Your task to perform on an android device: Go to location settings Image 0: 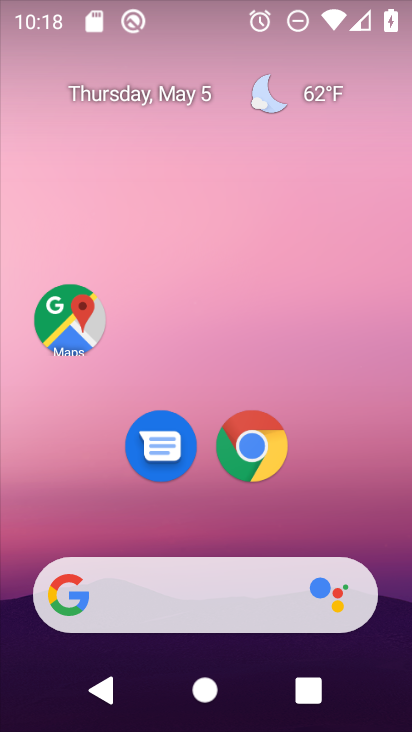
Step 0: drag from (284, 629) to (260, 203)
Your task to perform on an android device: Go to location settings Image 1: 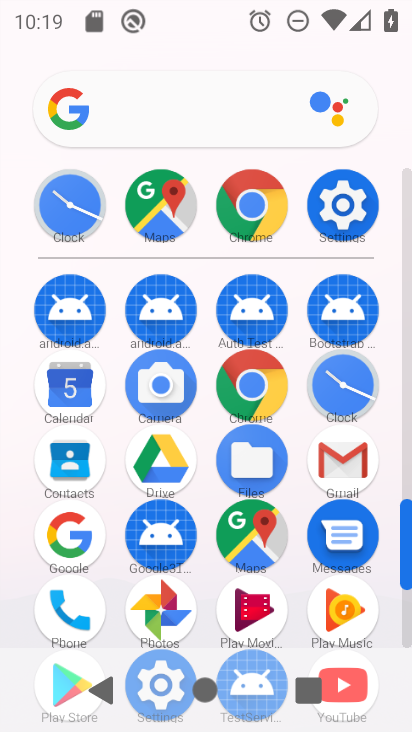
Step 1: click (328, 214)
Your task to perform on an android device: Go to location settings Image 2: 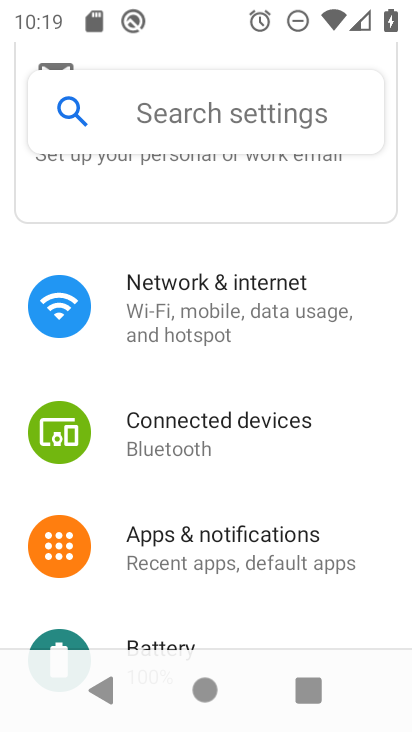
Step 2: click (167, 120)
Your task to perform on an android device: Go to location settings Image 3: 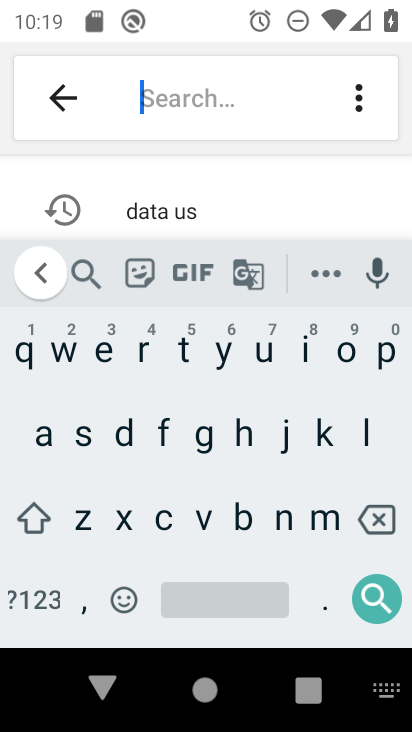
Step 3: click (370, 442)
Your task to perform on an android device: Go to location settings Image 4: 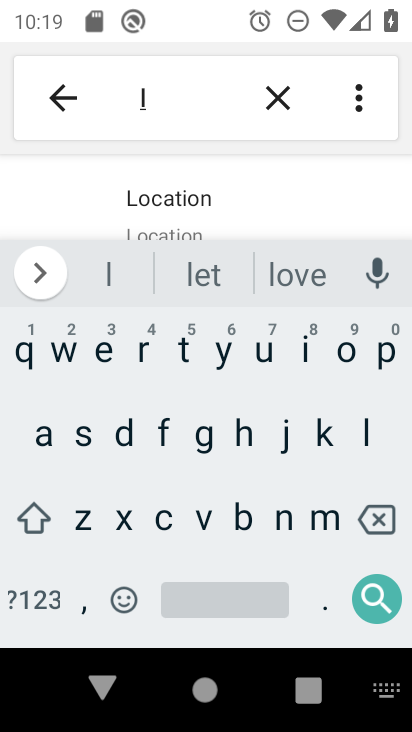
Step 4: click (203, 204)
Your task to perform on an android device: Go to location settings Image 5: 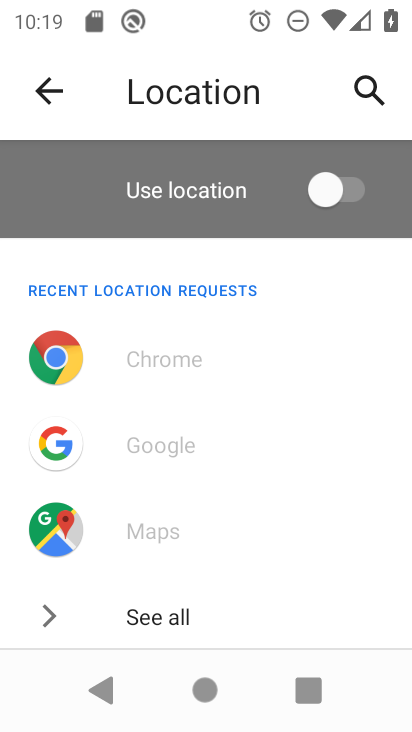
Step 5: task complete